Your task to perform on an android device: Open eBay Image 0: 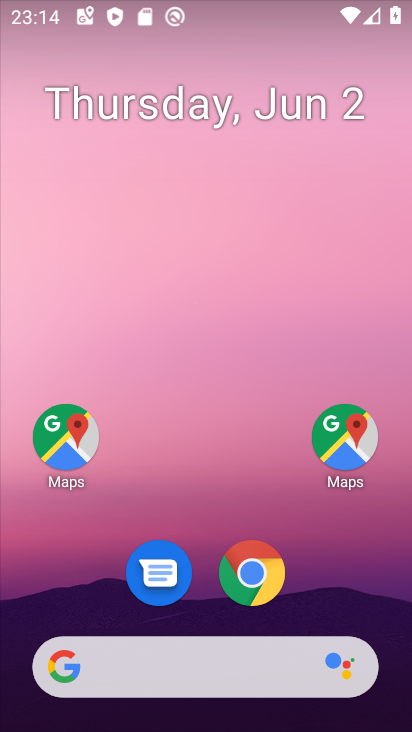
Step 0: click (267, 563)
Your task to perform on an android device: Open eBay Image 1: 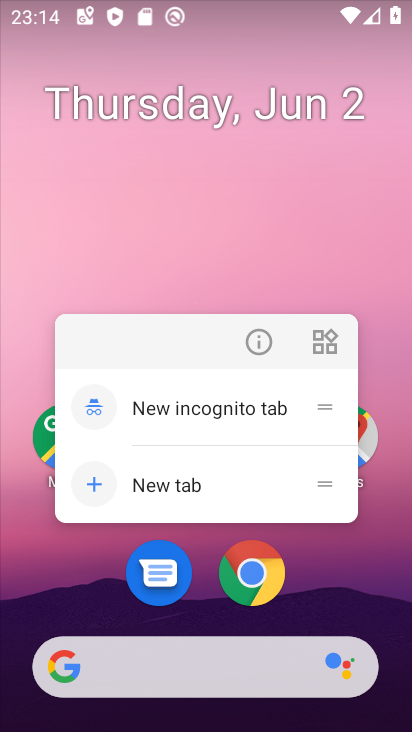
Step 1: click (267, 563)
Your task to perform on an android device: Open eBay Image 2: 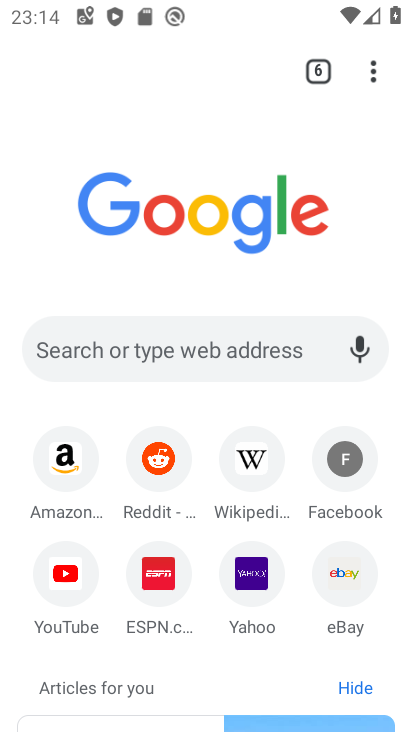
Step 2: click (315, 73)
Your task to perform on an android device: Open eBay Image 3: 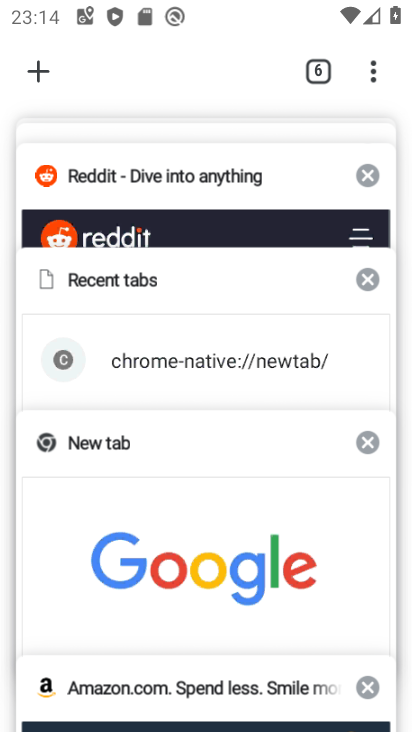
Step 3: drag from (251, 169) to (271, 303)
Your task to perform on an android device: Open eBay Image 4: 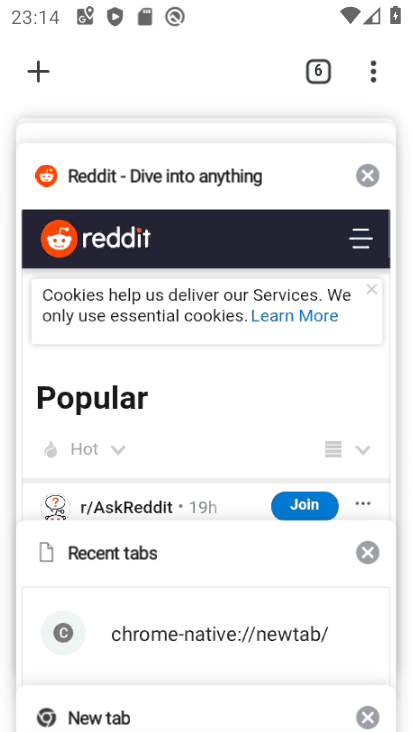
Step 4: drag from (267, 137) to (344, 683)
Your task to perform on an android device: Open eBay Image 5: 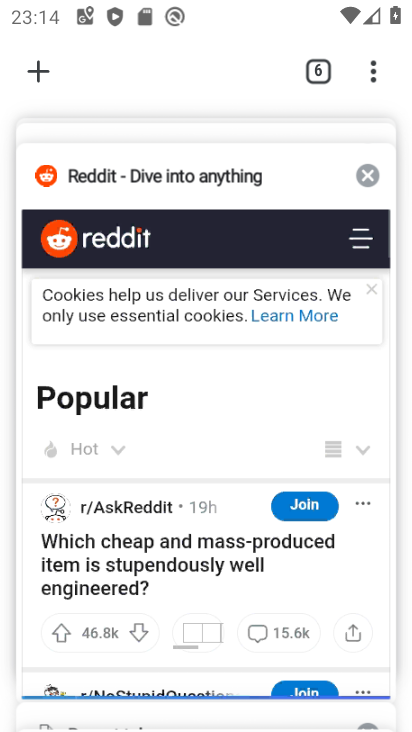
Step 5: click (251, 126)
Your task to perform on an android device: Open eBay Image 6: 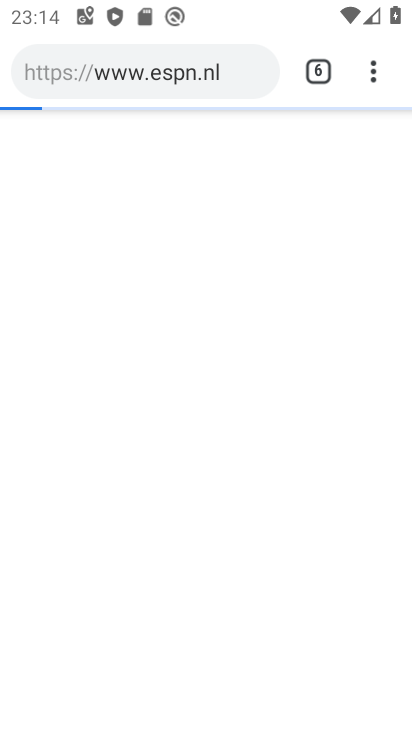
Step 6: drag from (251, 126) to (212, 456)
Your task to perform on an android device: Open eBay Image 7: 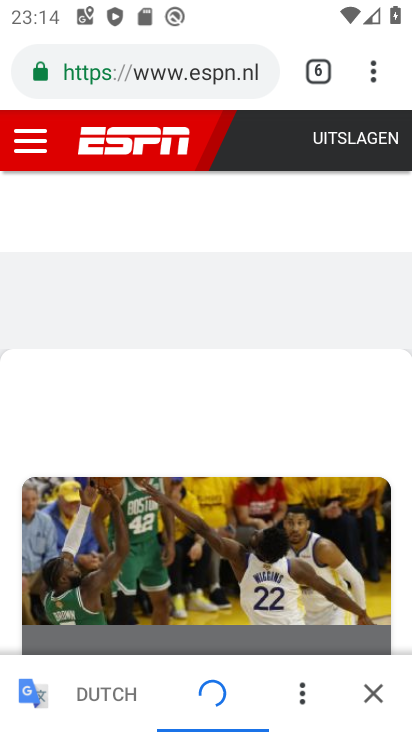
Step 7: click (320, 65)
Your task to perform on an android device: Open eBay Image 8: 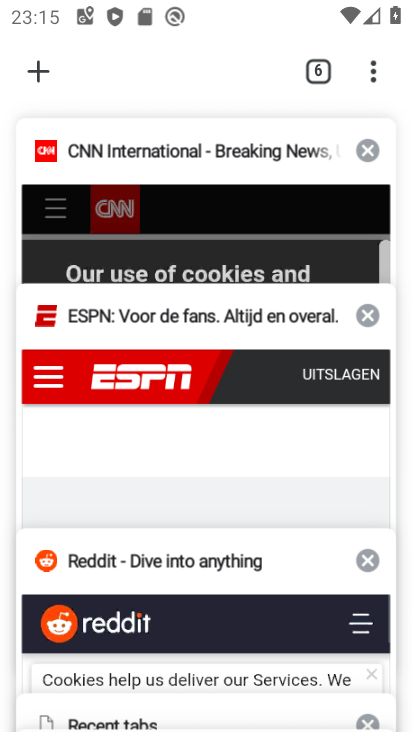
Step 8: click (41, 64)
Your task to perform on an android device: Open eBay Image 9: 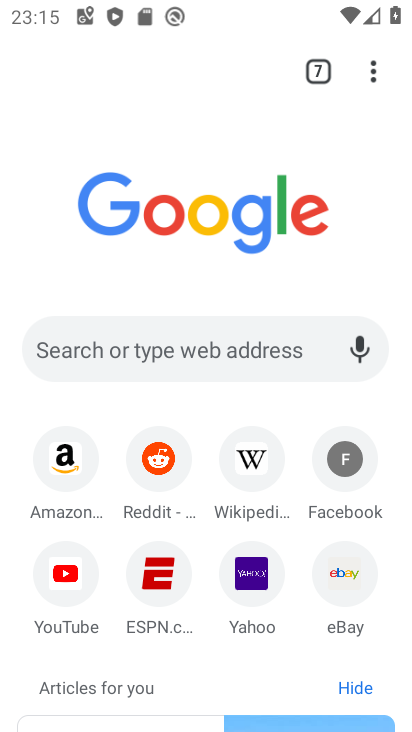
Step 9: click (342, 584)
Your task to perform on an android device: Open eBay Image 10: 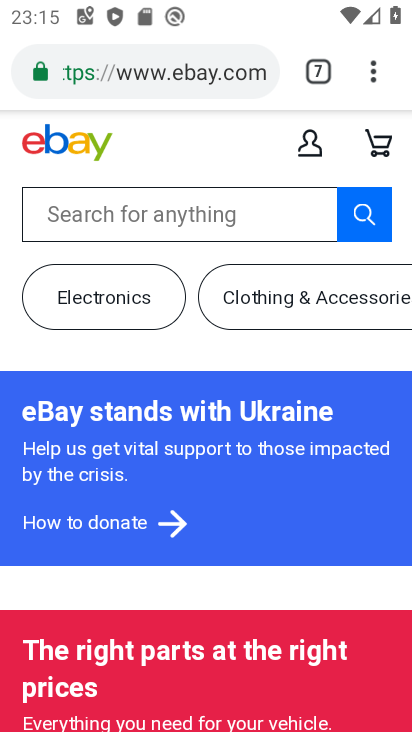
Step 10: task complete